Your task to perform on an android device: Check the weather Image 0: 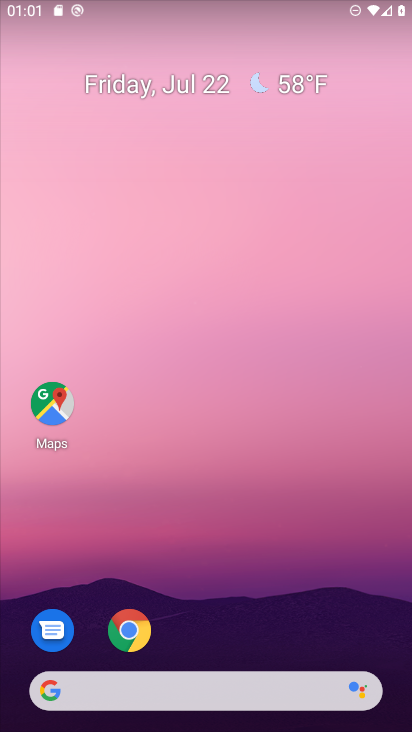
Step 0: drag from (214, 625) to (344, 24)
Your task to perform on an android device: Check the weather Image 1: 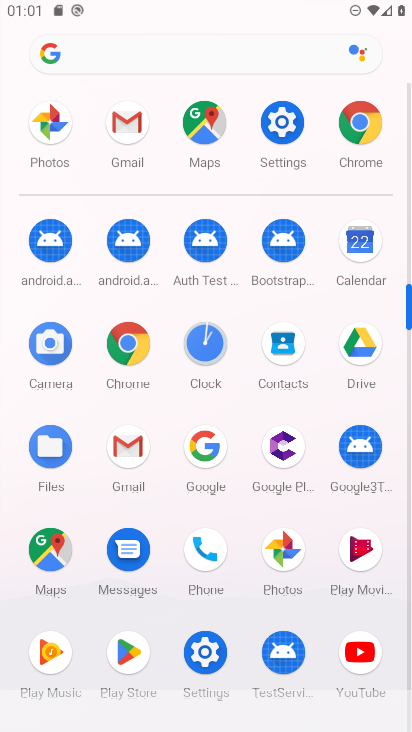
Step 1: click (130, 336)
Your task to perform on an android device: Check the weather Image 2: 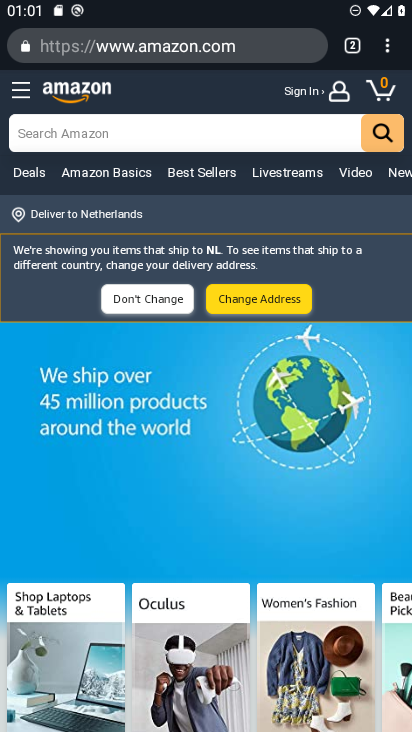
Step 2: click (96, 50)
Your task to perform on an android device: Check the weather Image 3: 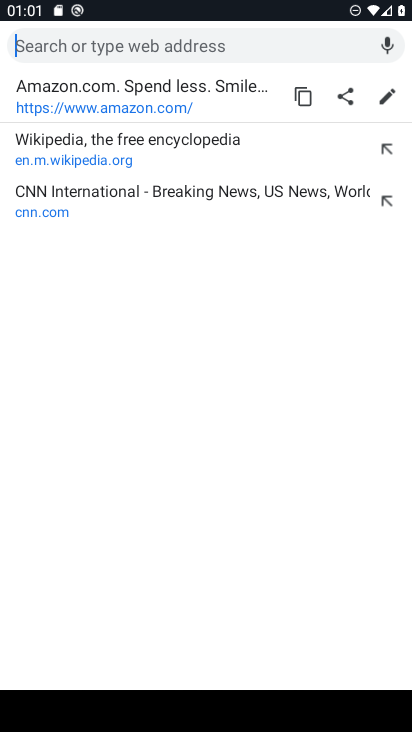
Step 3: type "Check the weather"
Your task to perform on an android device: Check the weather Image 4: 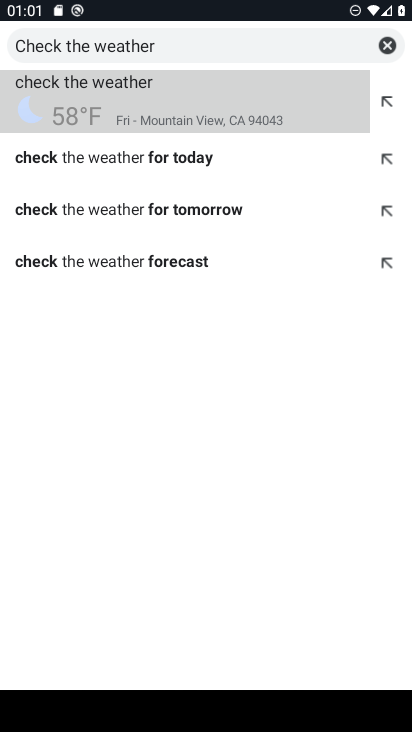
Step 4: click (72, 77)
Your task to perform on an android device: Check the weather Image 5: 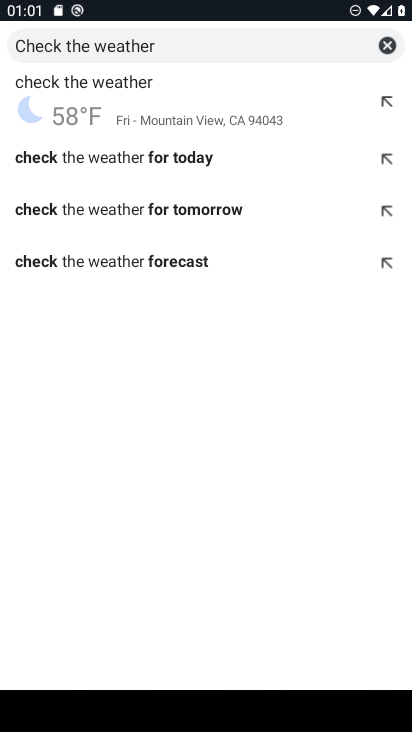
Step 5: click (80, 87)
Your task to perform on an android device: Check the weather Image 6: 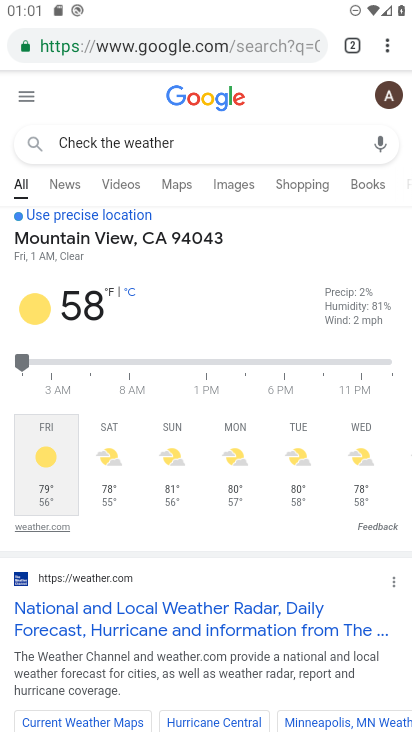
Step 6: task complete